Your task to perform on an android device: change notifications settings Image 0: 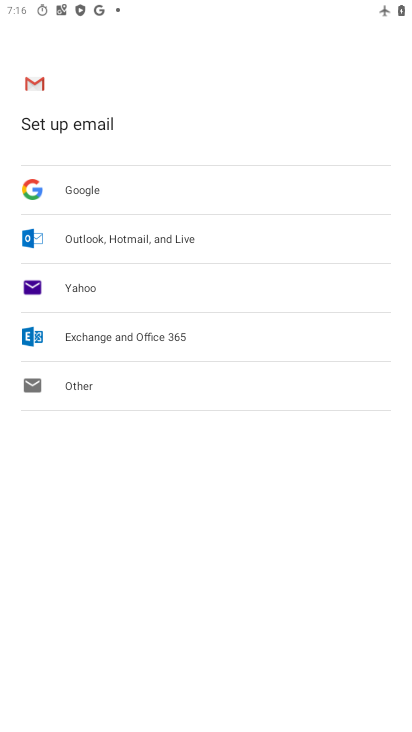
Step 0: press home button
Your task to perform on an android device: change notifications settings Image 1: 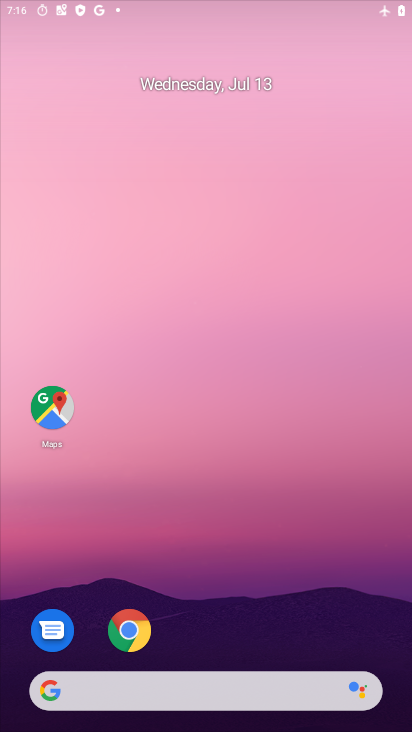
Step 1: drag from (356, 639) to (250, 29)
Your task to perform on an android device: change notifications settings Image 2: 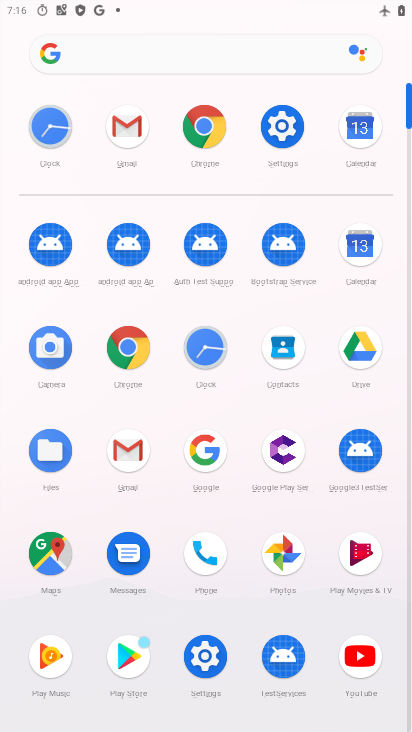
Step 2: click (277, 119)
Your task to perform on an android device: change notifications settings Image 3: 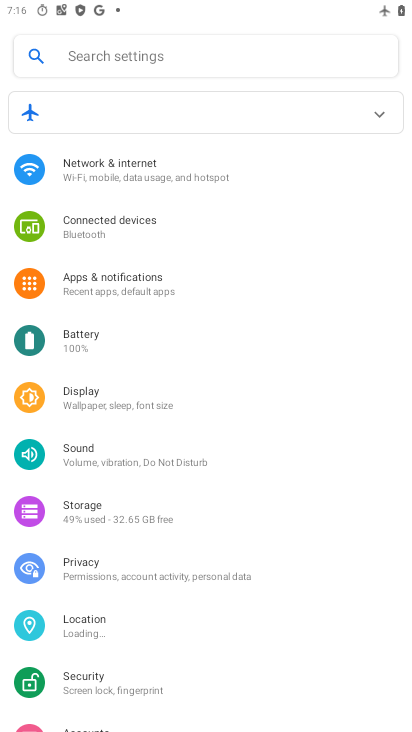
Step 3: click (165, 292)
Your task to perform on an android device: change notifications settings Image 4: 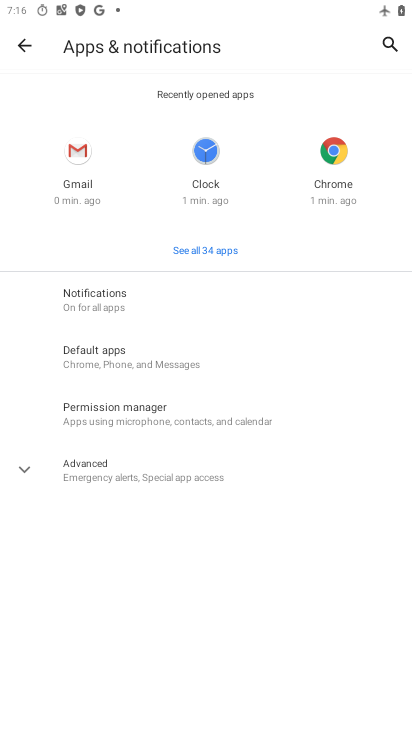
Step 4: task complete